Your task to perform on an android device: Open eBay Image 0: 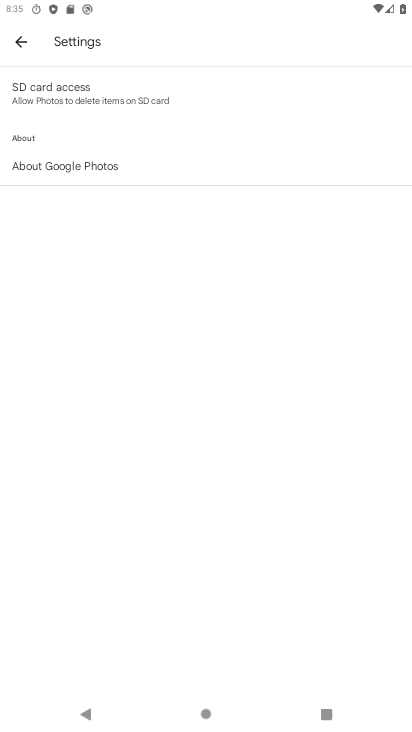
Step 0: press home button
Your task to perform on an android device: Open eBay Image 1: 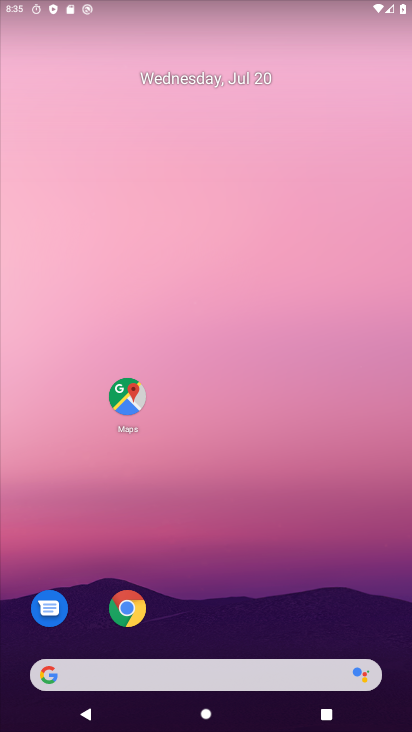
Step 1: drag from (286, 576) to (245, 117)
Your task to perform on an android device: Open eBay Image 2: 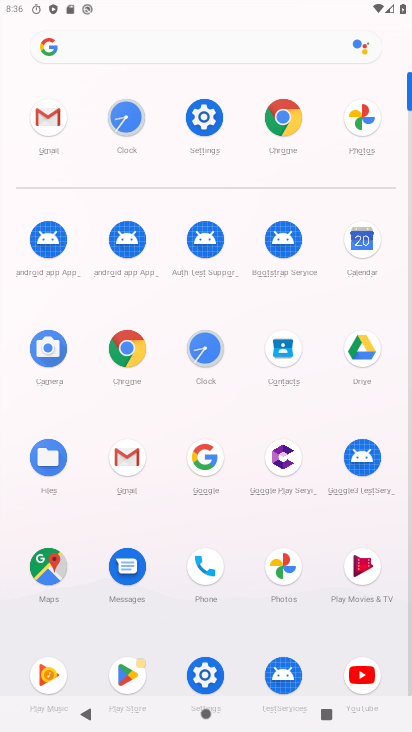
Step 2: click (131, 363)
Your task to perform on an android device: Open eBay Image 3: 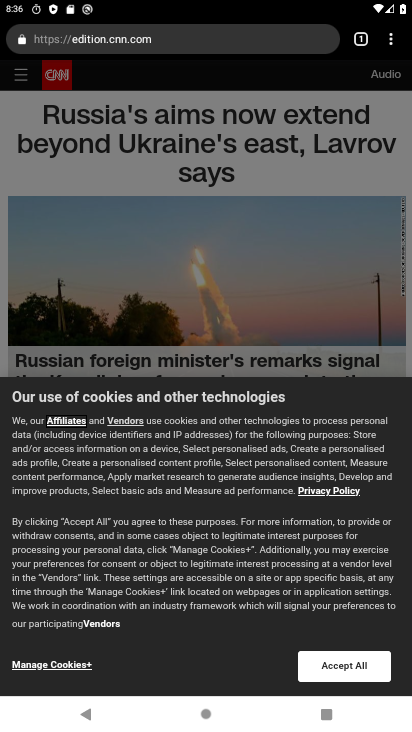
Step 3: click (296, 189)
Your task to perform on an android device: Open eBay Image 4: 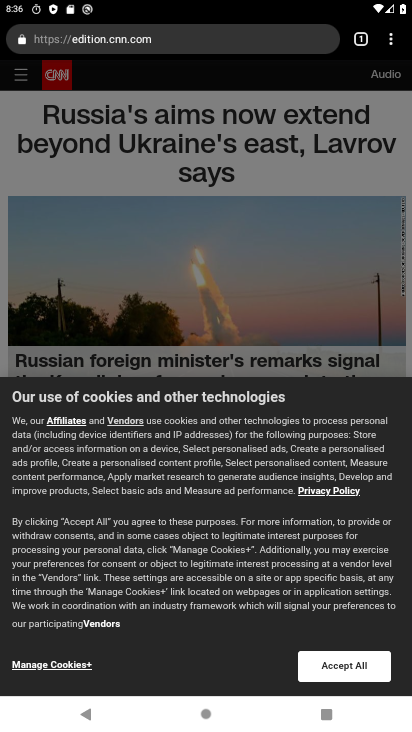
Step 4: click (371, 30)
Your task to perform on an android device: Open eBay Image 5: 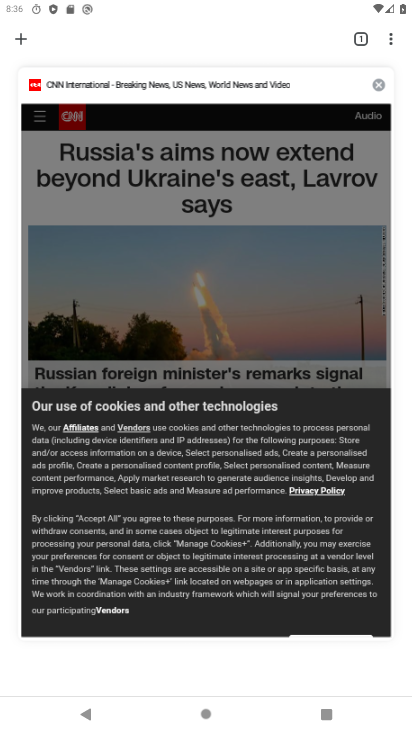
Step 5: click (18, 38)
Your task to perform on an android device: Open eBay Image 6: 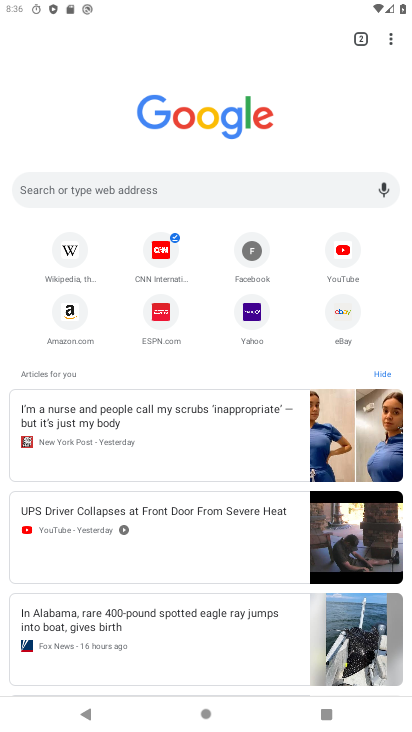
Step 6: click (149, 193)
Your task to perform on an android device: Open eBay Image 7: 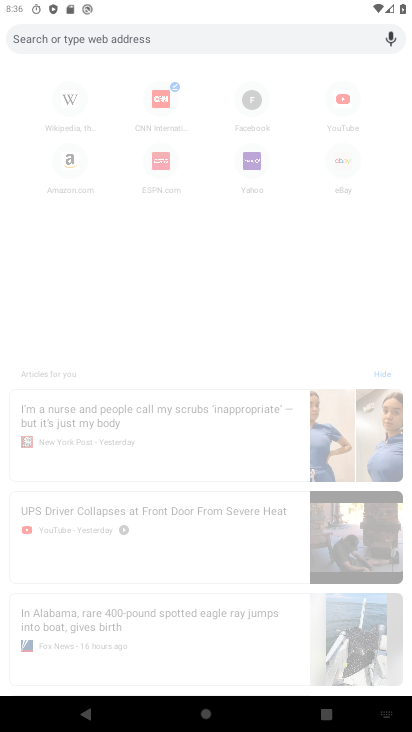
Step 7: type "eBay"
Your task to perform on an android device: Open eBay Image 8: 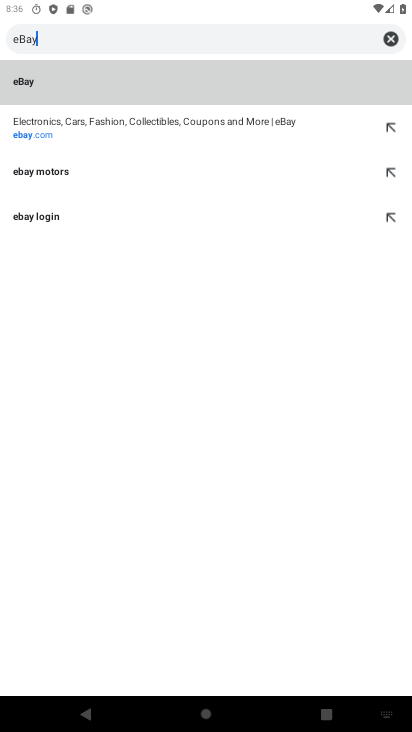
Step 8: click (120, 126)
Your task to perform on an android device: Open eBay Image 9: 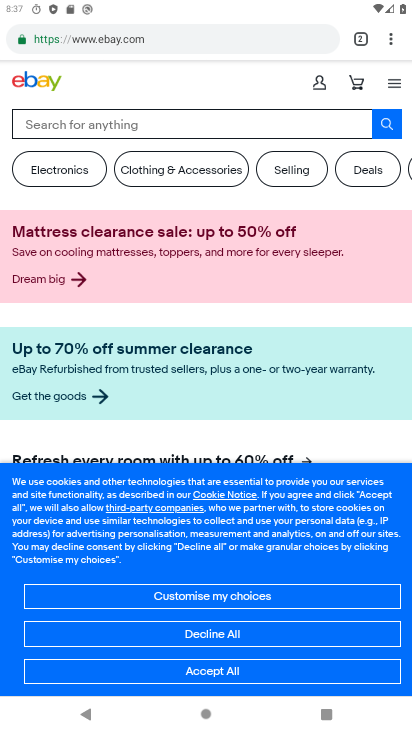
Step 9: task complete